Your task to perform on an android device: Open calendar and show me the fourth week of next month Image 0: 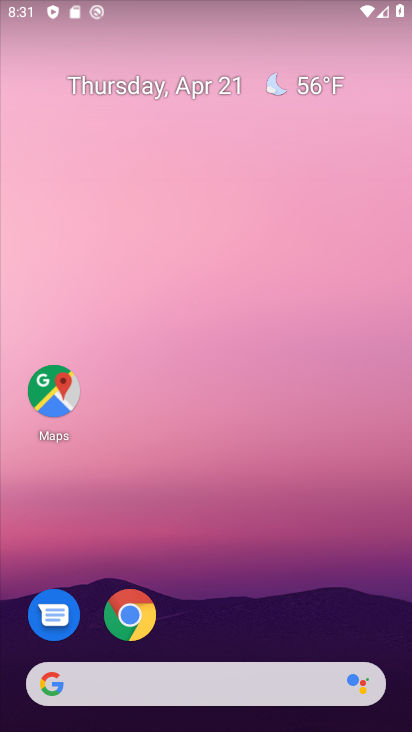
Step 0: drag from (266, 589) to (191, 183)
Your task to perform on an android device: Open calendar and show me the fourth week of next month Image 1: 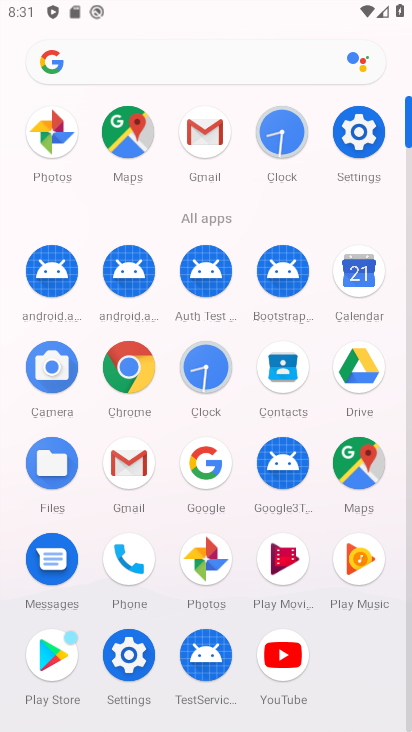
Step 1: click (354, 276)
Your task to perform on an android device: Open calendar and show me the fourth week of next month Image 2: 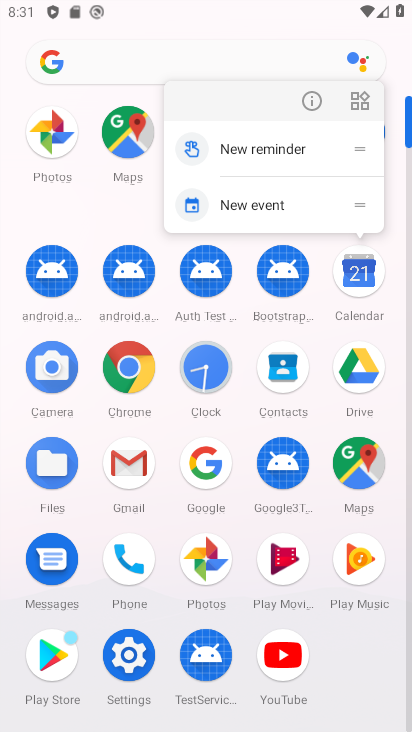
Step 2: click (343, 277)
Your task to perform on an android device: Open calendar and show me the fourth week of next month Image 3: 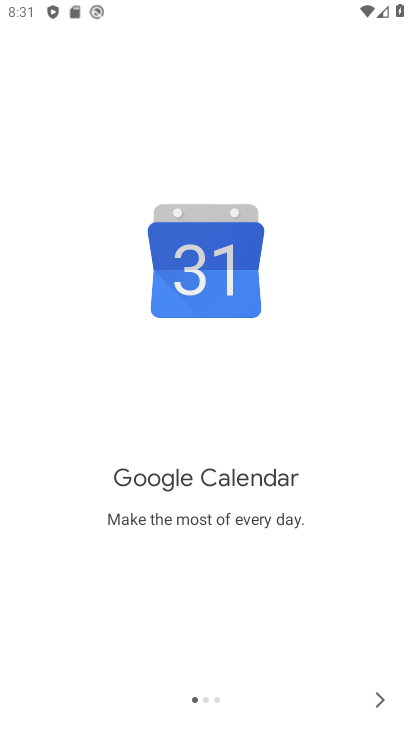
Step 3: click (385, 689)
Your task to perform on an android device: Open calendar and show me the fourth week of next month Image 4: 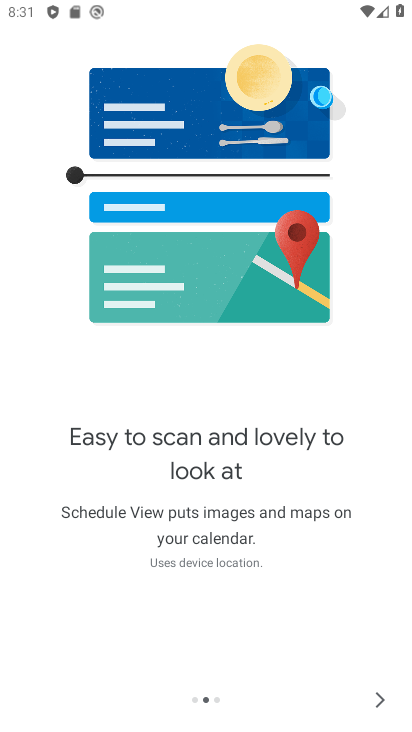
Step 4: click (376, 701)
Your task to perform on an android device: Open calendar and show me the fourth week of next month Image 5: 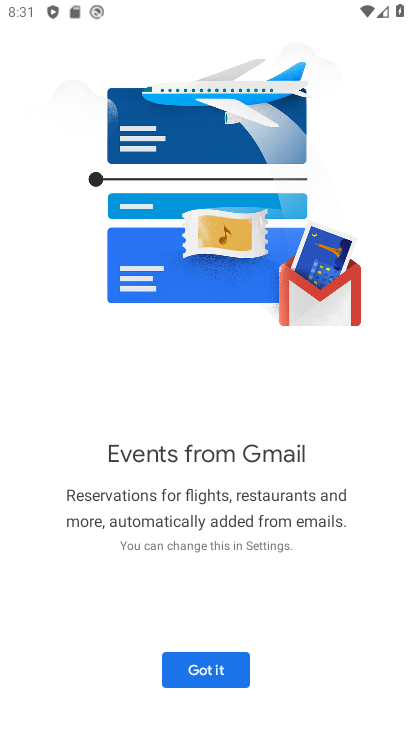
Step 5: click (207, 682)
Your task to perform on an android device: Open calendar and show me the fourth week of next month Image 6: 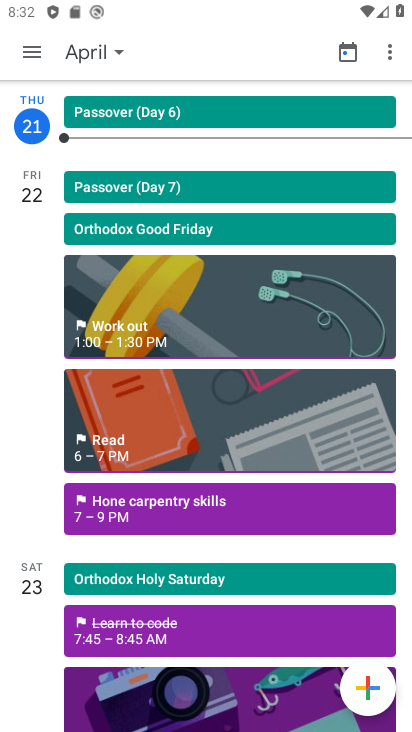
Step 6: click (99, 58)
Your task to perform on an android device: Open calendar and show me the fourth week of next month Image 7: 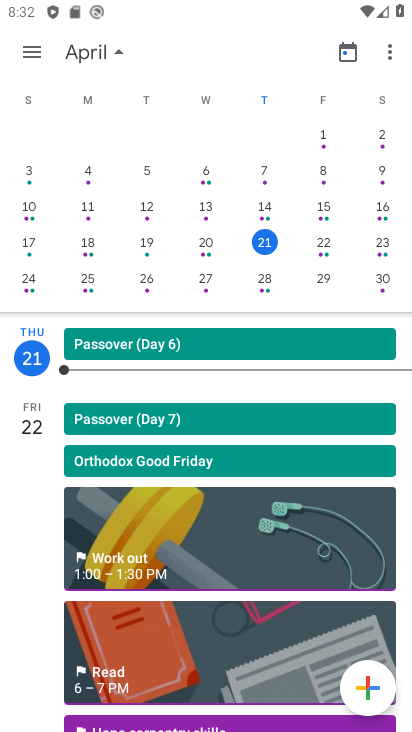
Step 7: drag from (285, 175) to (30, 200)
Your task to perform on an android device: Open calendar and show me the fourth week of next month Image 8: 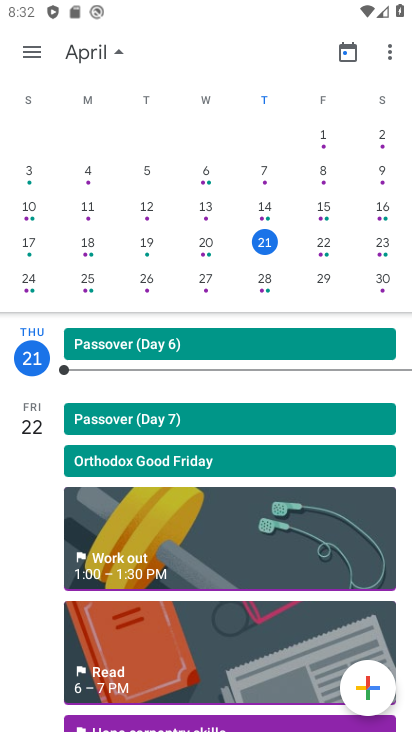
Step 8: click (31, 57)
Your task to perform on an android device: Open calendar and show me the fourth week of next month Image 9: 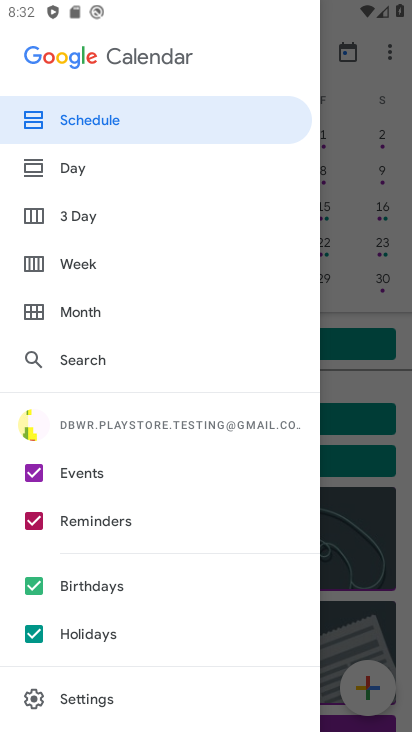
Step 9: click (76, 257)
Your task to perform on an android device: Open calendar and show me the fourth week of next month Image 10: 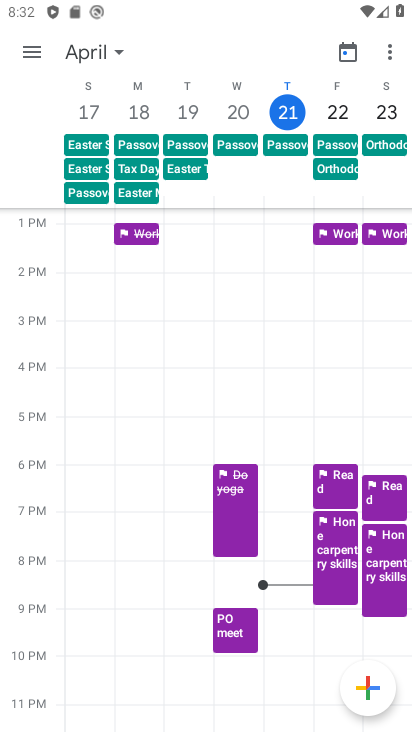
Step 10: click (96, 47)
Your task to perform on an android device: Open calendar and show me the fourth week of next month Image 11: 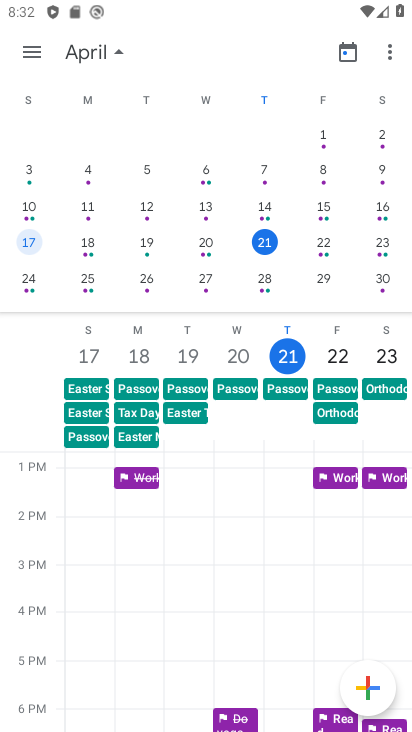
Step 11: drag from (328, 197) to (7, 195)
Your task to perform on an android device: Open calendar and show me the fourth week of next month Image 12: 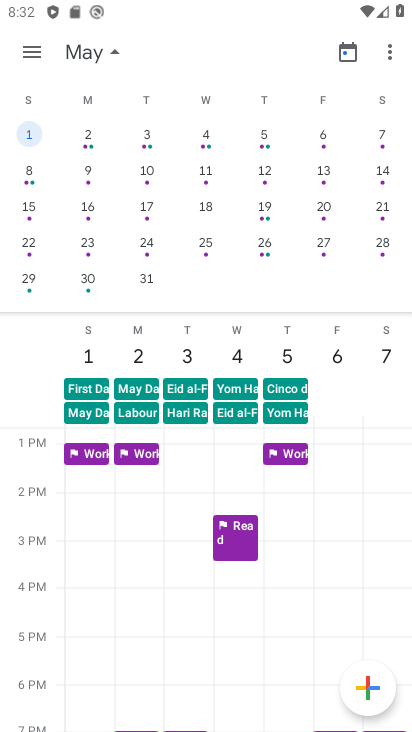
Step 12: click (24, 244)
Your task to perform on an android device: Open calendar and show me the fourth week of next month Image 13: 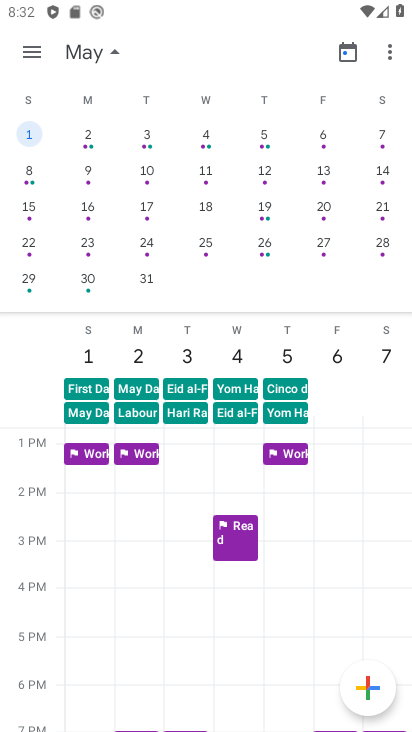
Step 13: click (27, 245)
Your task to perform on an android device: Open calendar and show me the fourth week of next month Image 14: 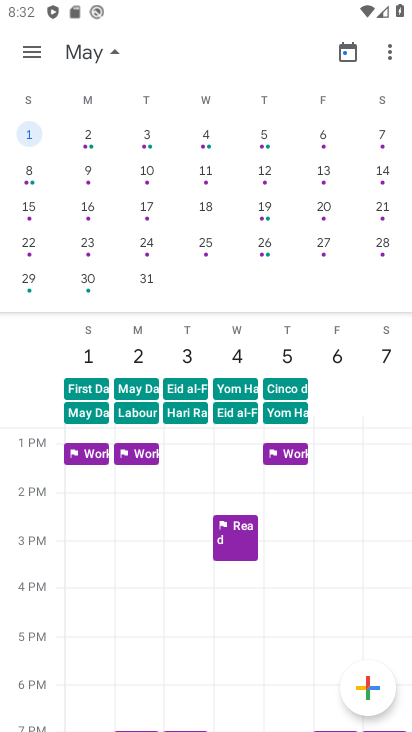
Step 14: click (31, 244)
Your task to perform on an android device: Open calendar and show me the fourth week of next month Image 15: 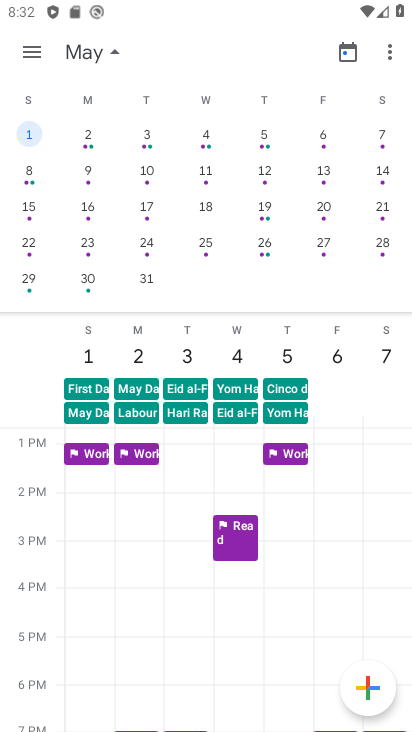
Step 15: click (31, 244)
Your task to perform on an android device: Open calendar and show me the fourth week of next month Image 16: 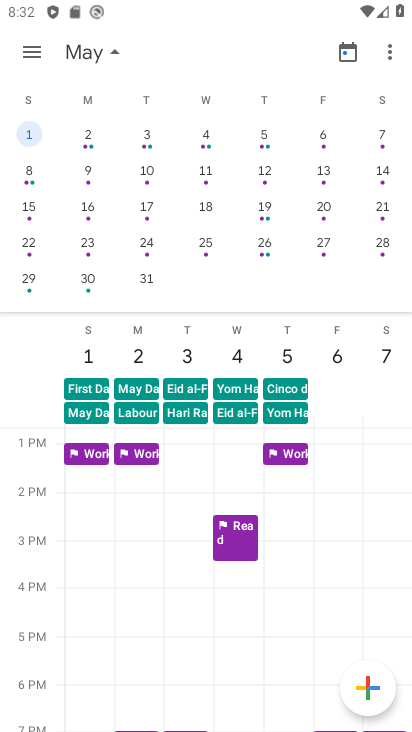
Step 16: click (31, 244)
Your task to perform on an android device: Open calendar and show me the fourth week of next month Image 17: 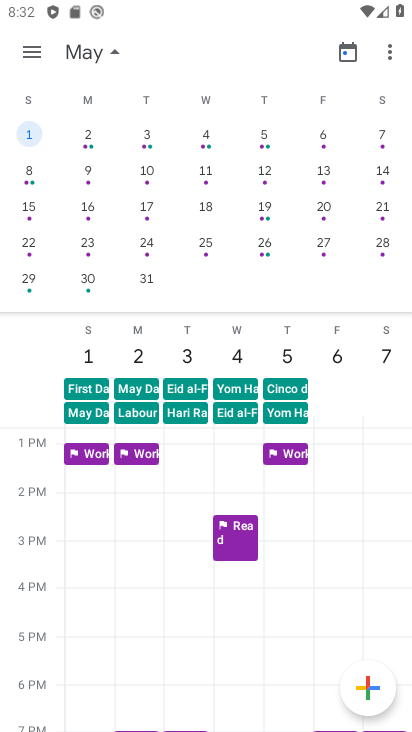
Step 17: click (30, 247)
Your task to perform on an android device: Open calendar and show me the fourth week of next month Image 18: 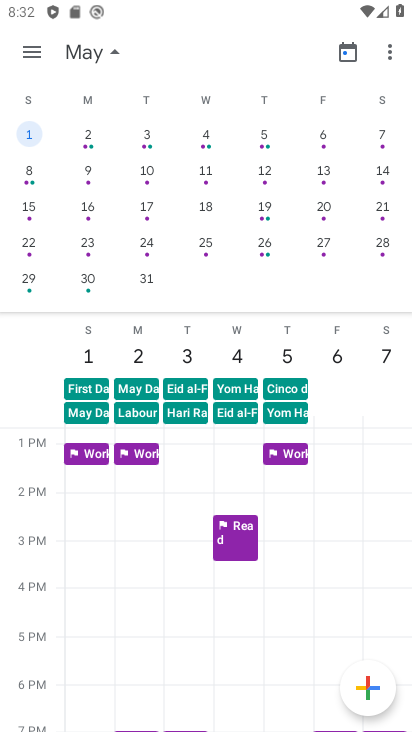
Step 18: click (22, 240)
Your task to perform on an android device: Open calendar and show me the fourth week of next month Image 19: 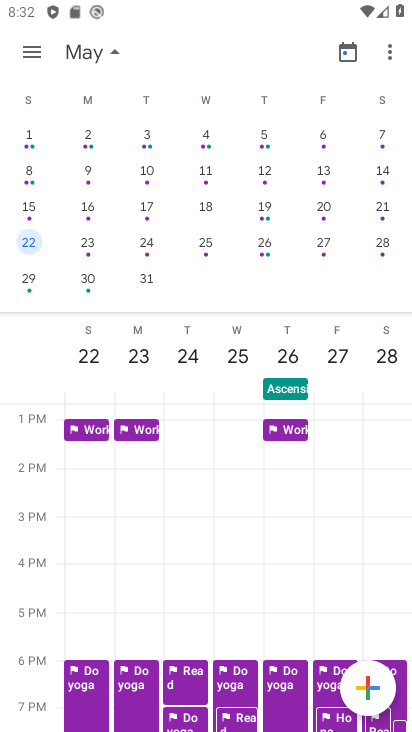
Step 19: click (21, 239)
Your task to perform on an android device: Open calendar and show me the fourth week of next month Image 20: 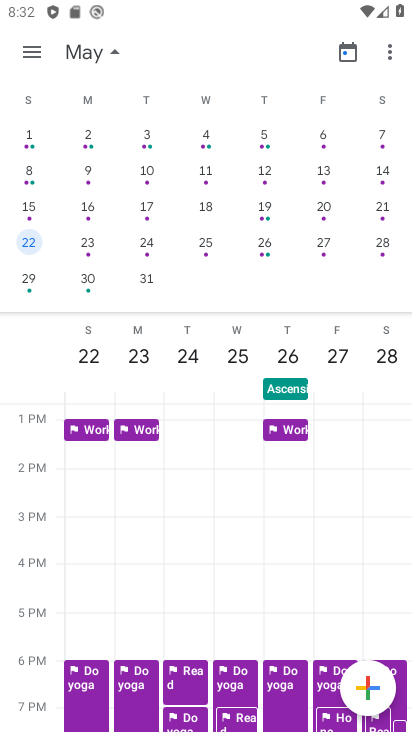
Step 20: task complete